Your task to perform on an android device: Clear all items from cart on newegg. Add panasonic triple a to the cart on newegg Image 0: 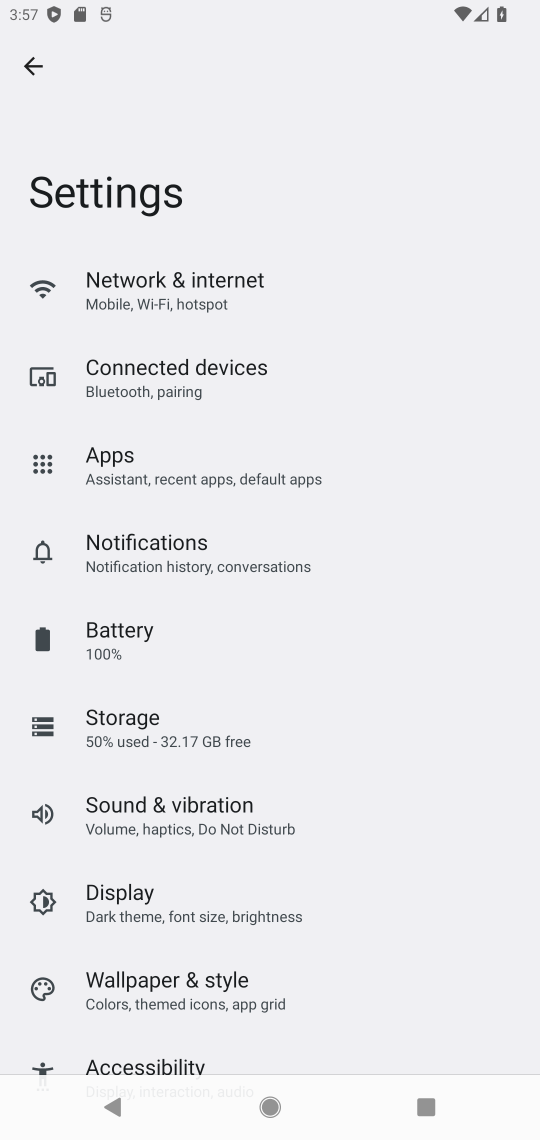
Step 0: press home button
Your task to perform on an android device: Clear all items from cart on newegg. Add panasonic triple a to the cart on newegg Image 1: 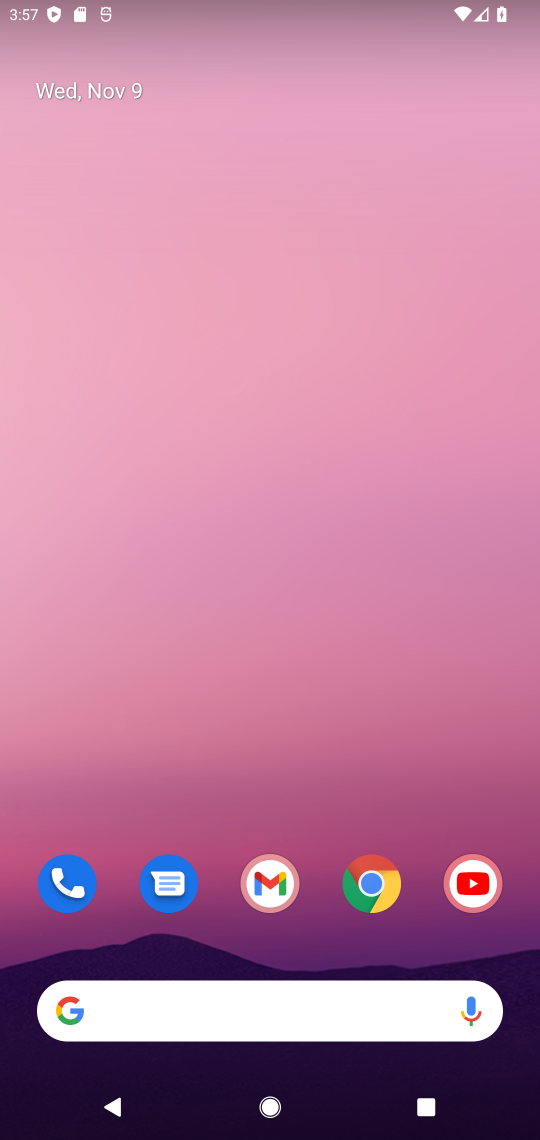
Step 1: click (365, 880)
Your task to perform on an android device: Clear all items from cart on newegg. Add panasonic triple a to the cart on newegg Image 2: 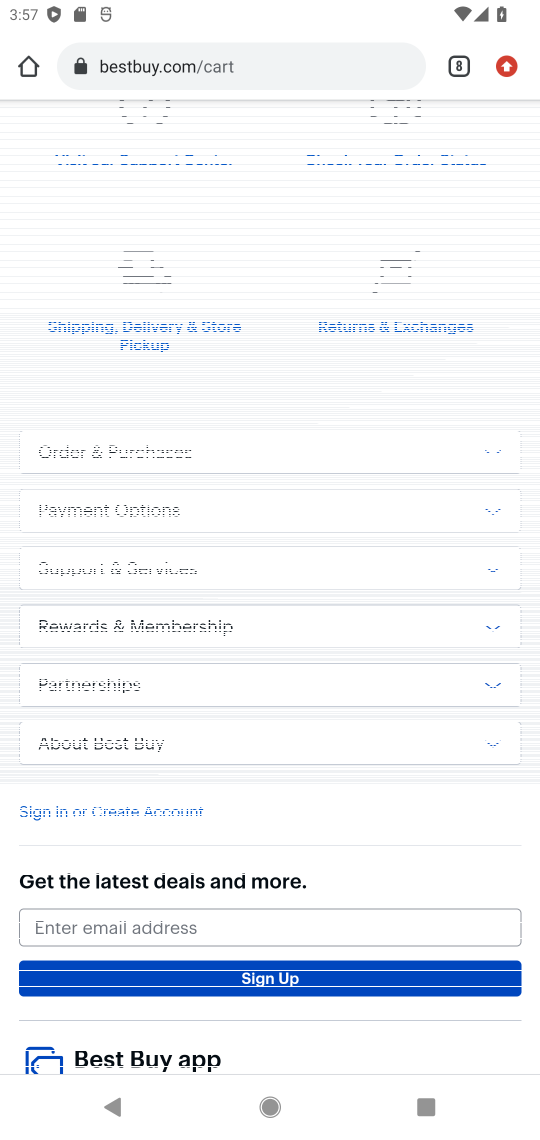
Step 2: click (457, 67)
Your task to perform on an android device: Clear all items from cart on newegg. Add panasonic triple a to the cart on newegg Image 3: 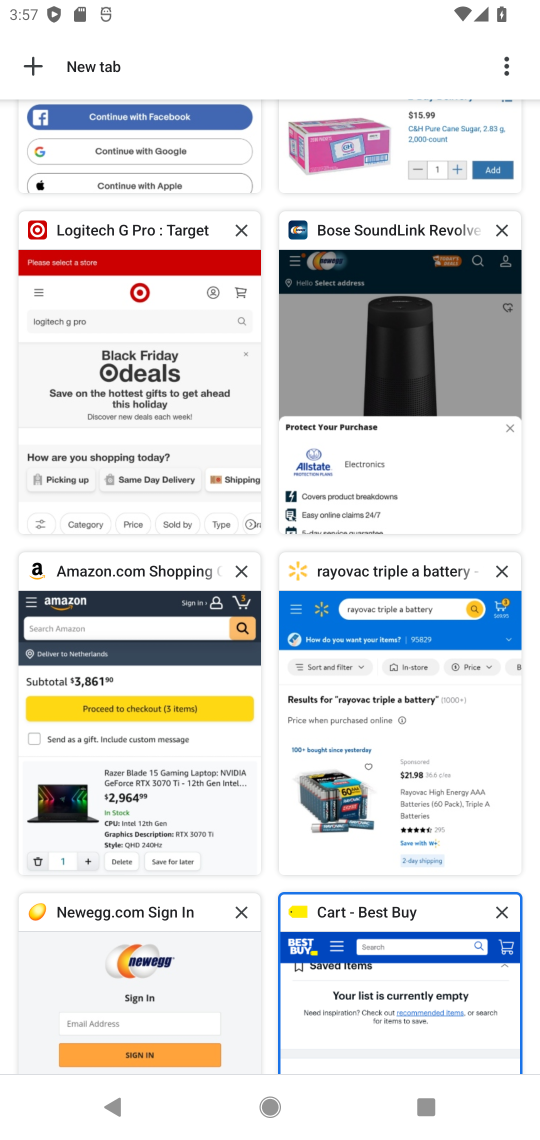
Step 3: click (337, 424)
Your task to perform on an android device: Clear all items from cart on newegg. Add panasonic triple a to the cart on newegg Image 4: 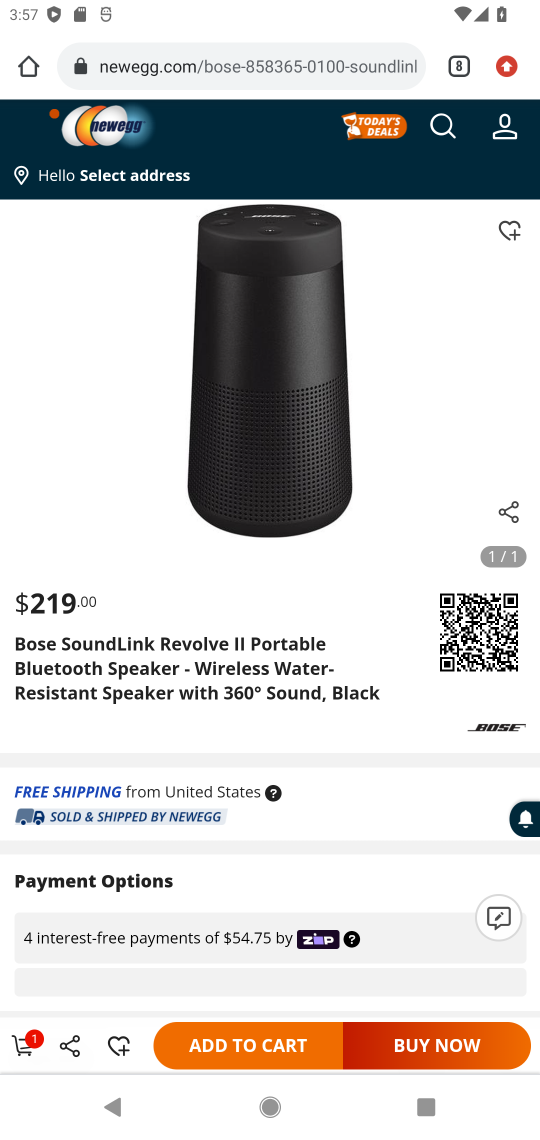
Step 4: click (24, 1035)
Your task to perform on an android device: Clear all items from cart on newegg. Add panasonic triple a to the cart on newegg Image 5: 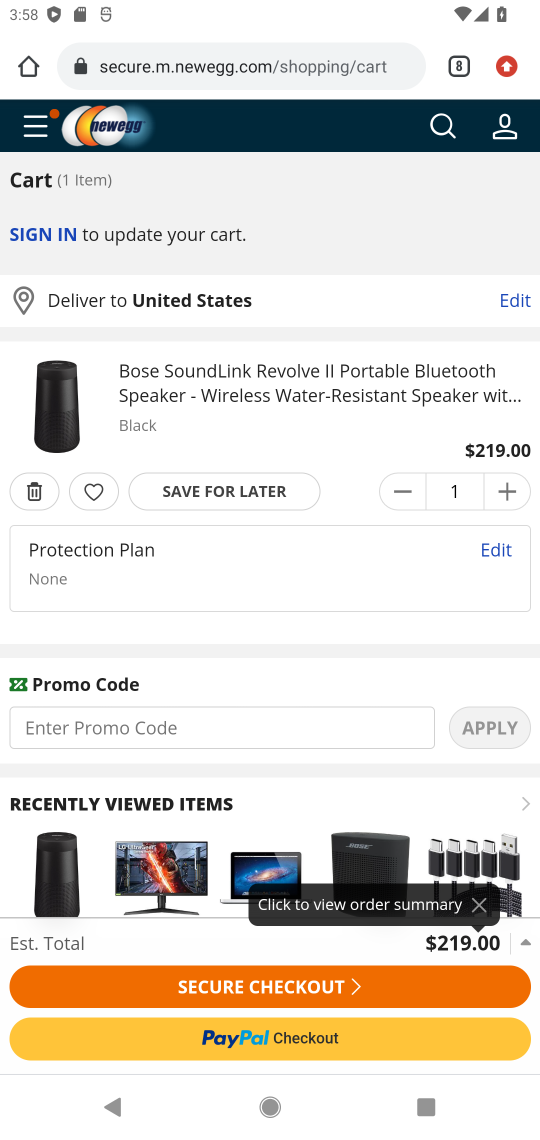
Step 5: click (31, 495)
Your task to perform on an android device: Clear all items from cart on newegg. Add panasonic triple a to the cart on newegg Image 6: 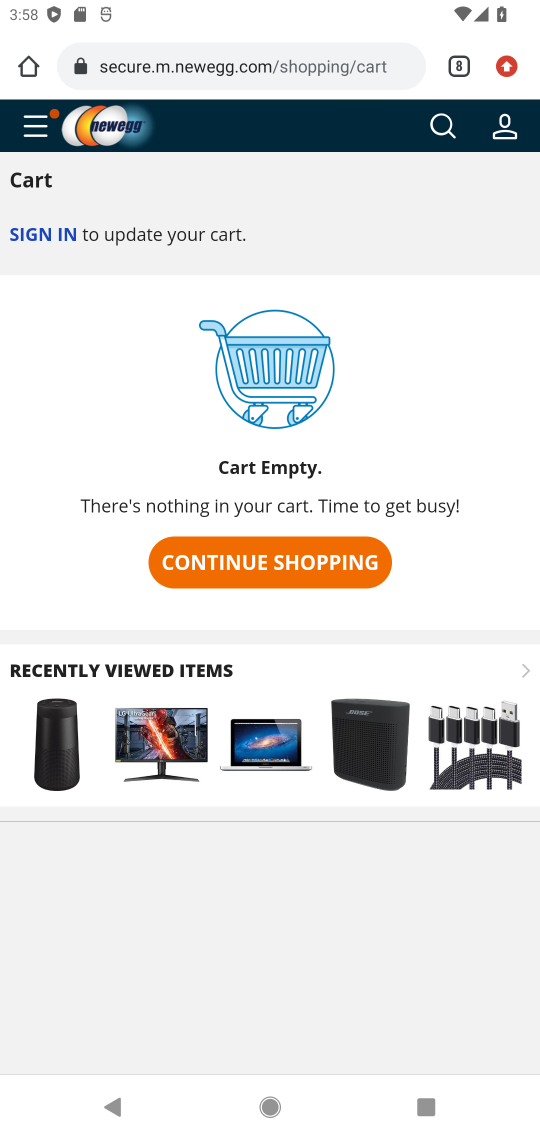
Step 6: click (444, 127)
Your task to perform on an android device: Clear all items from cart on newegg. Add panasonic triple a to the cart on newegg Image 7: 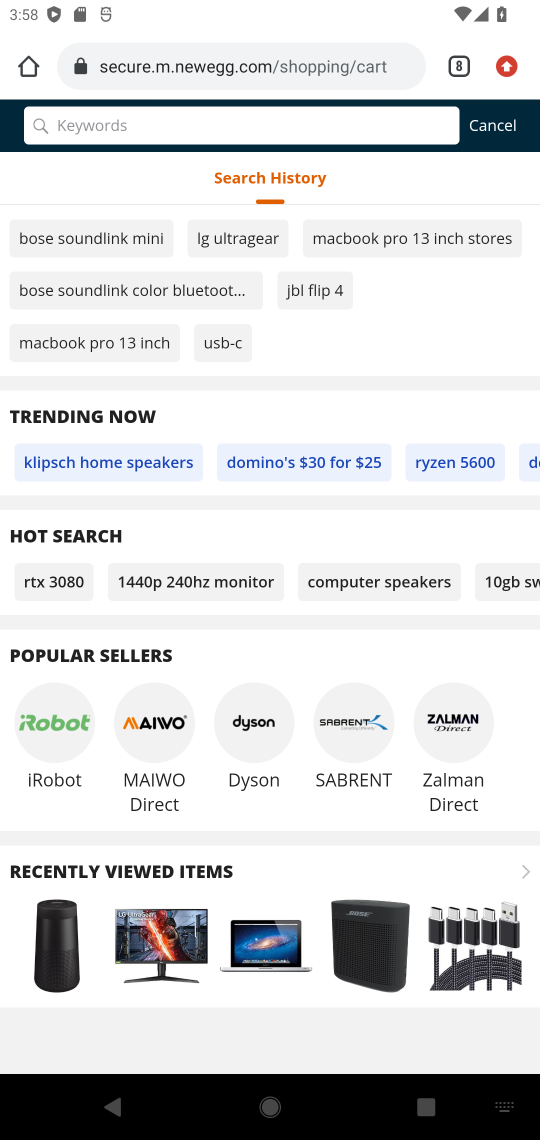
Step 7: type "panasonic triple a"
Your task to perform on an android device: Clear all items from cart on newegg. Add panasonic triple a to the cart on newegg Image 8: 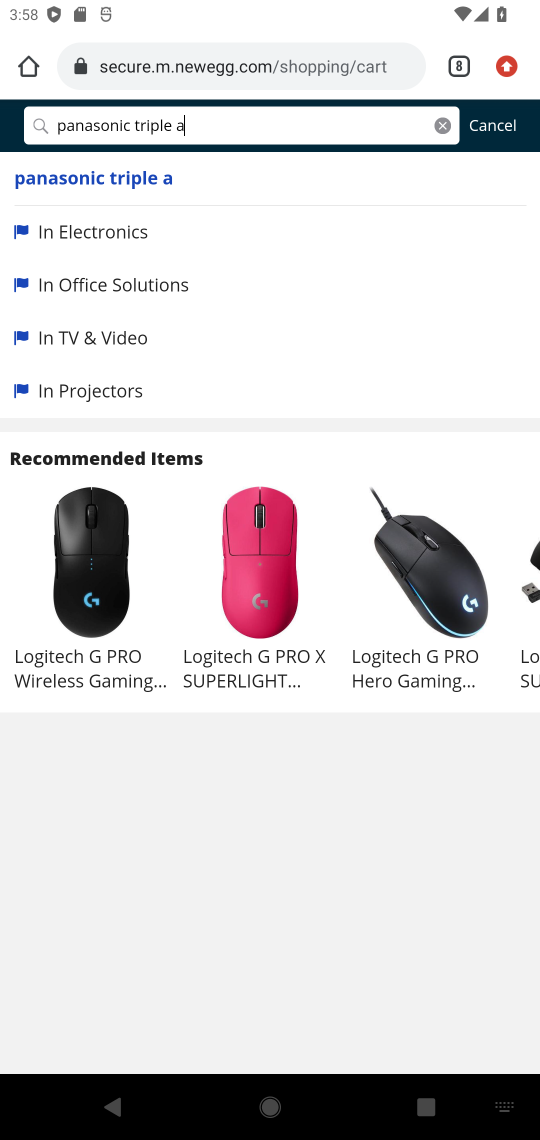
Step 8: click (56, 176)
Your task to perform on an android device: Clear all items from cart on newegg. Add panasonic triple a to the cart on newegg Image 9: 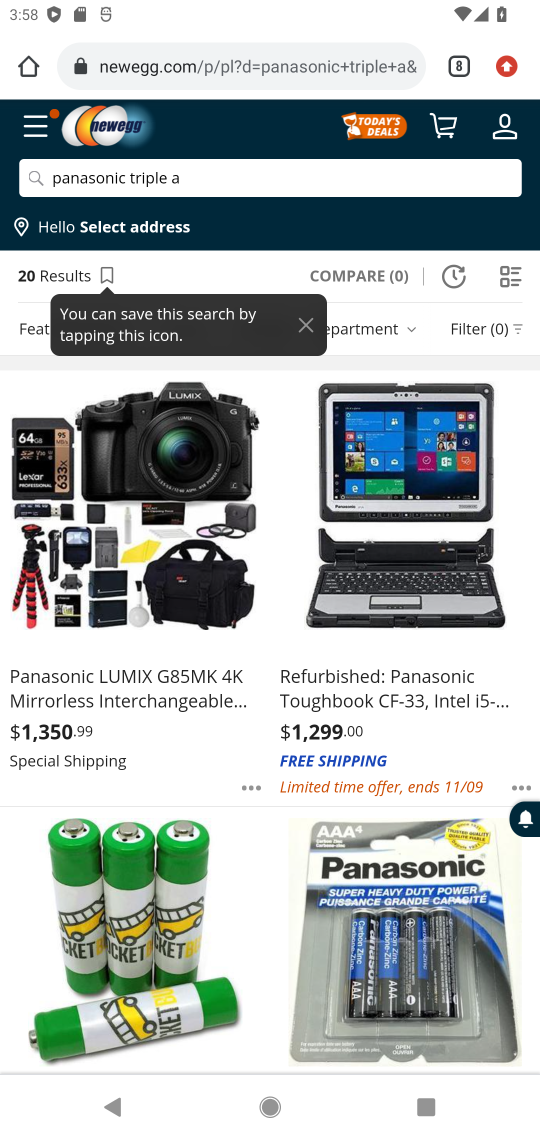
Step 9: drag from (242, 941) to (353, 490)
Your task to perform on an android device: Clear all items from cart on newegg. Add panasonic triple a to the cart on newegg Image 10: 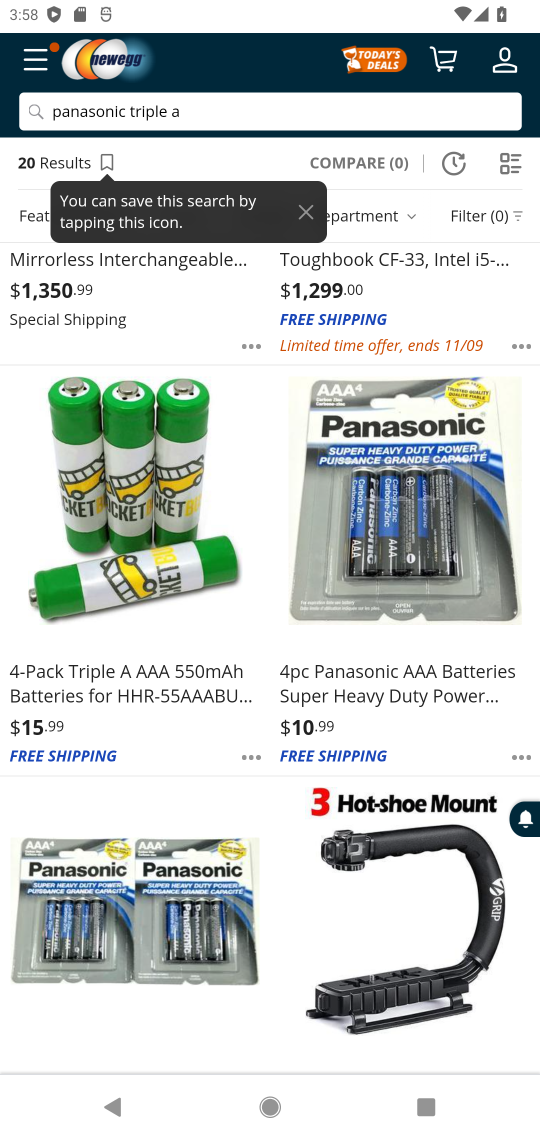
Step 10: click (376, 689)
Your task to perform on an android device: Clear all items from cart on newegg. Add panasonic triple a to the cart on newegg Image 11: 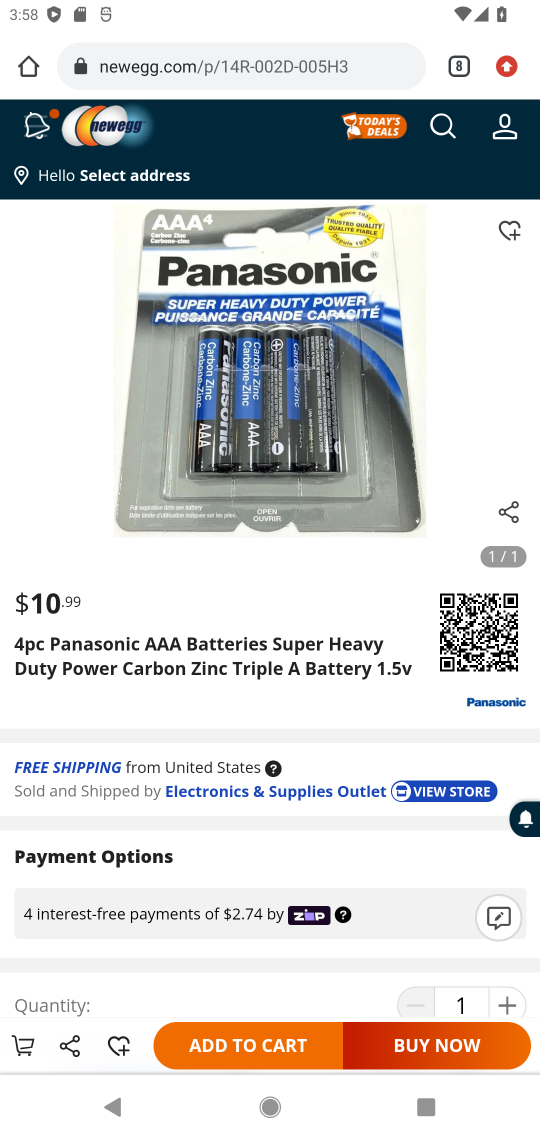
Step 11: click (261, 1047)
Your task to perform on an android device: Clear all items from cart on newegg. Add panasonic triple a to the cart on newegg Image 12: 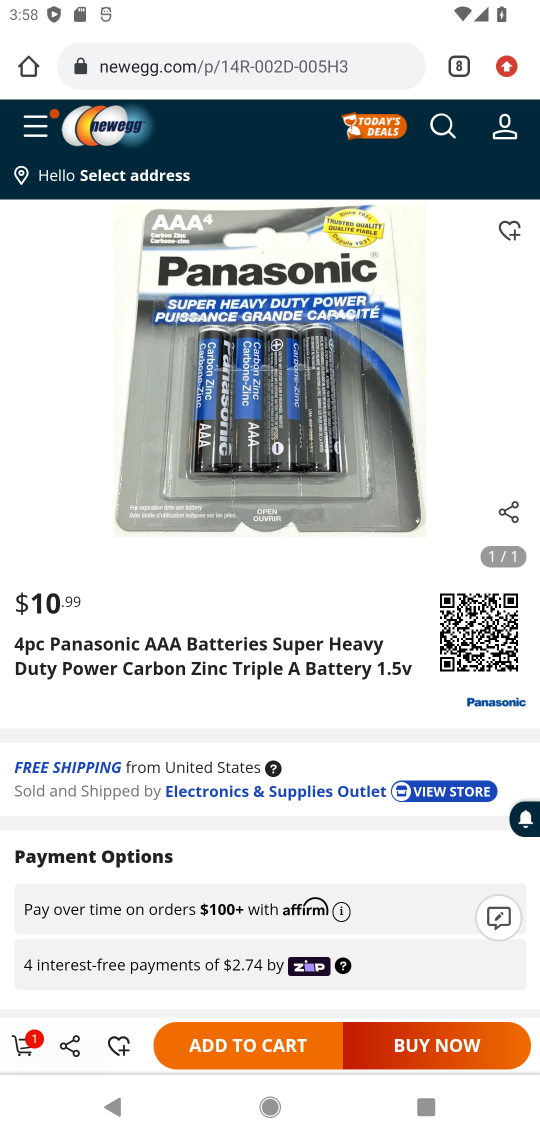
Step 12: task complete